Your task to perform on an android device: open app "AliExpress" (install if not already installed), go to login, and select forgot password Image 0: 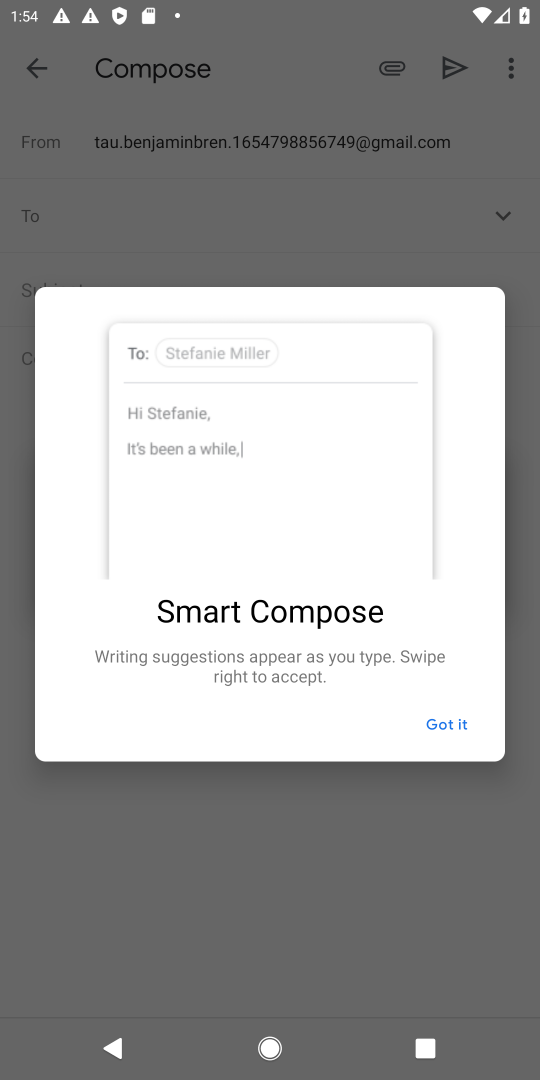
Step 0: press home button
Your task to perform on an android device: open app "AliExpress" (install if not already installed), go to login, and select forgot password Image 1: 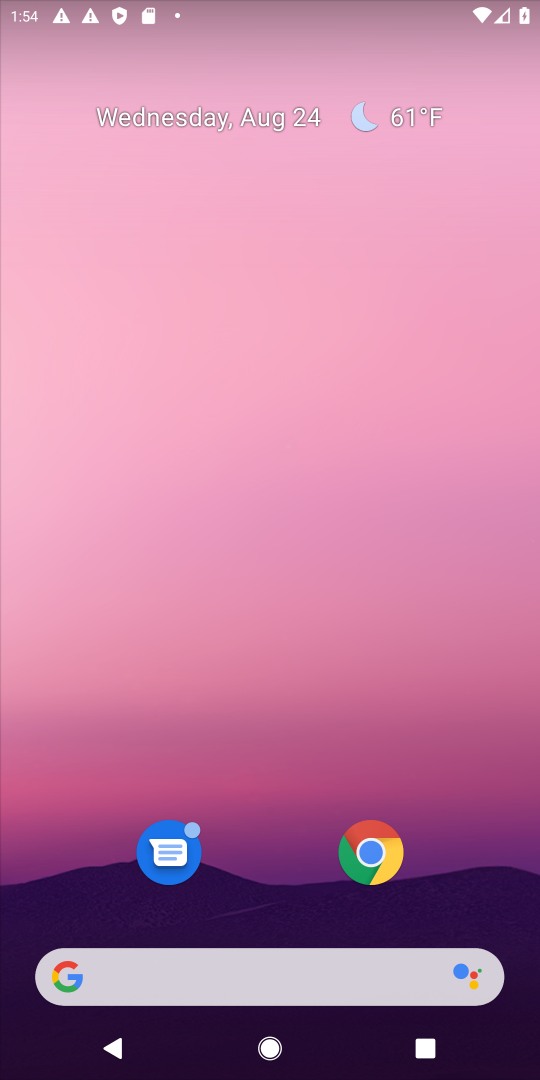
Step 1: drag from (275, 896) to (287, 53)
Your task to perform on an android device: open app "AliExpress" (install if not already installed), go to login, and select forgot password Image 2: 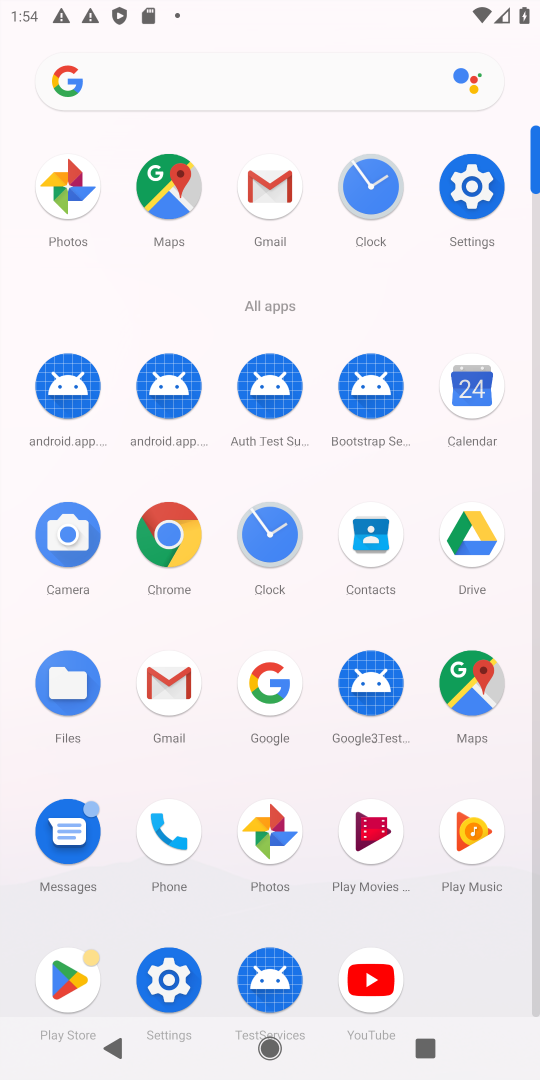
Step 2: click (59, 974)
Your task to perform on an android device: open app "AliExpress" (install if not already installed), go to login, and select forgot password Image 3: 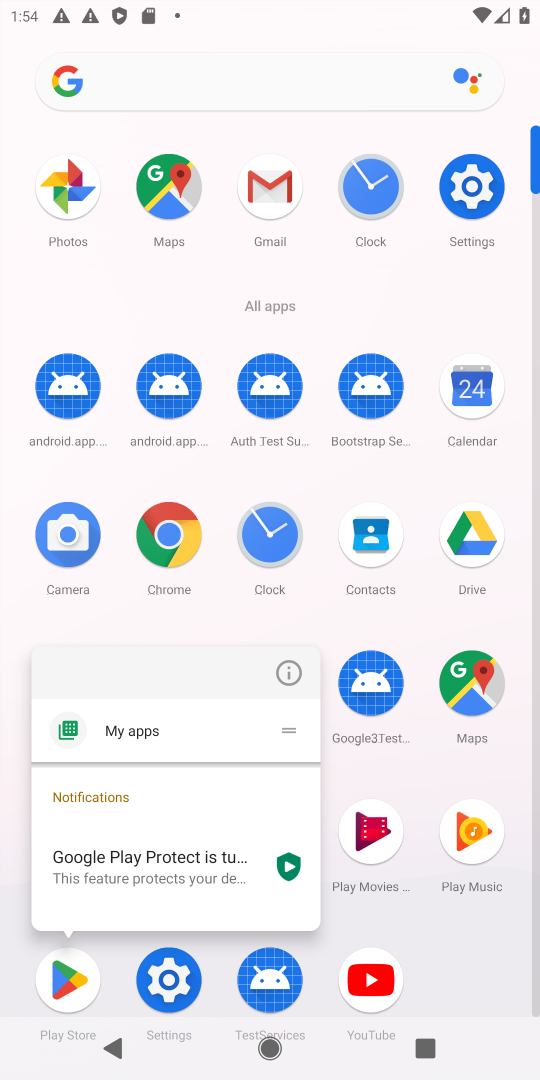
Step 3: click (66, 973)
Your task to perform on an android device: open app "AliExpress" (install if not already installed), go to login, and select forgot password Image 4: 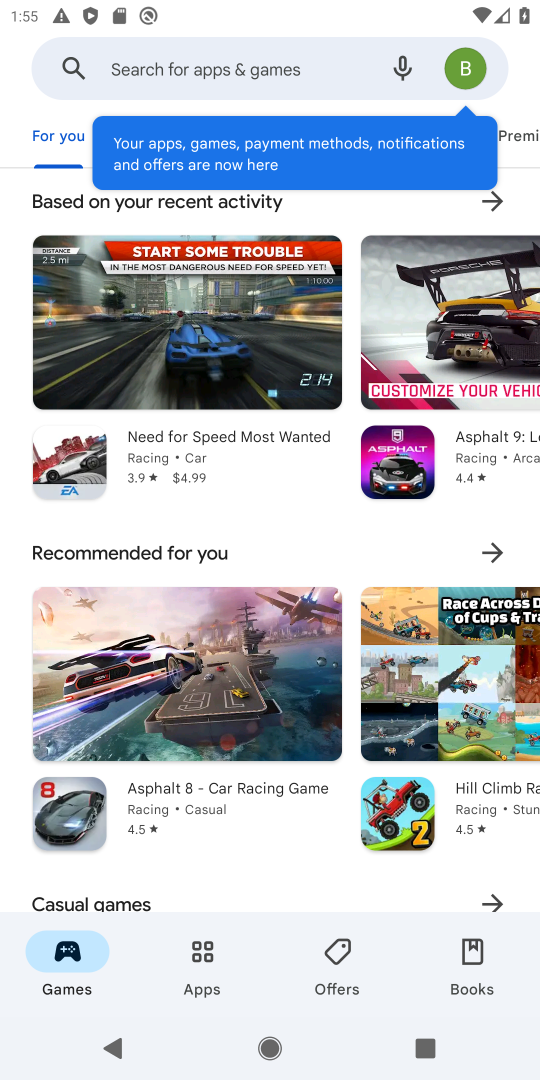
Step 4: click (172, 63)
Your task to perform on an android device: open app "AliExpress" (install if not already installed), go to login, and select forgot password Image 5: 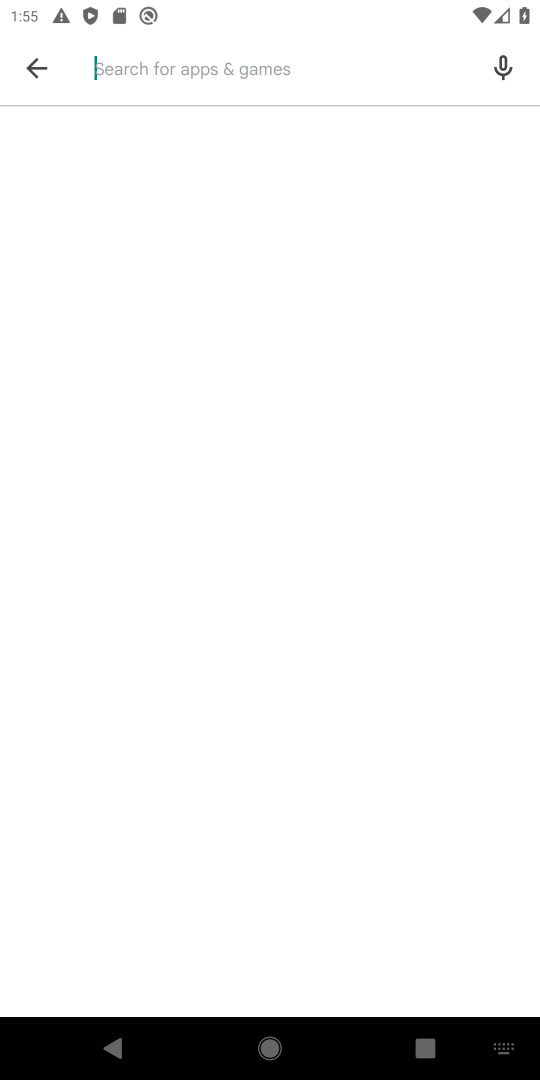
Step 5: type "AliExpress"
Your task to perform on an android device: open app "AliExpress" (install if not already installed), go to login, and select forgot password Image 6: 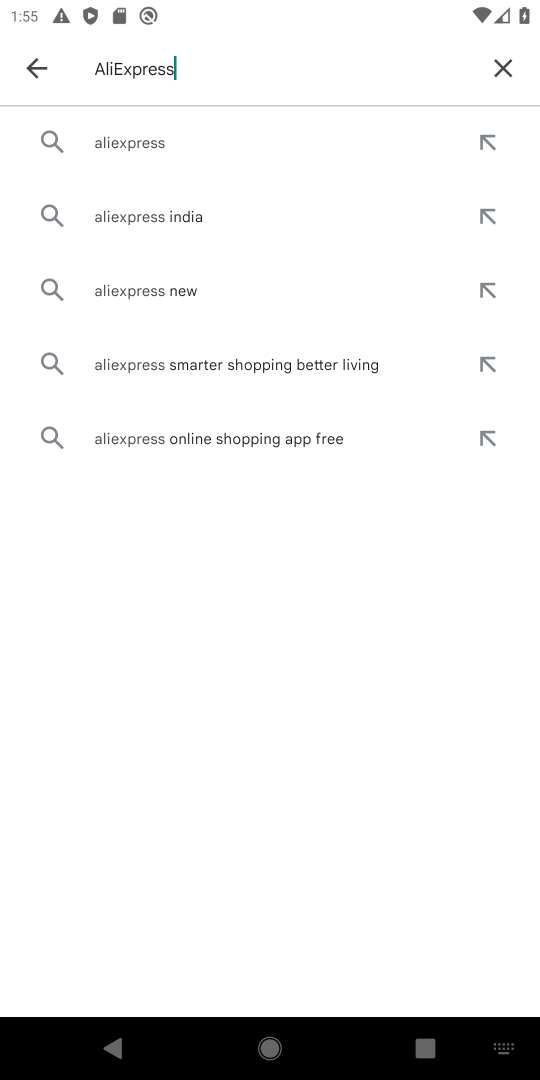
Step 6: click (171, 135)
Your task to perform on an android device: open app "AliExpress" (install if not already installed), go to login, and select forgot password Image 7: 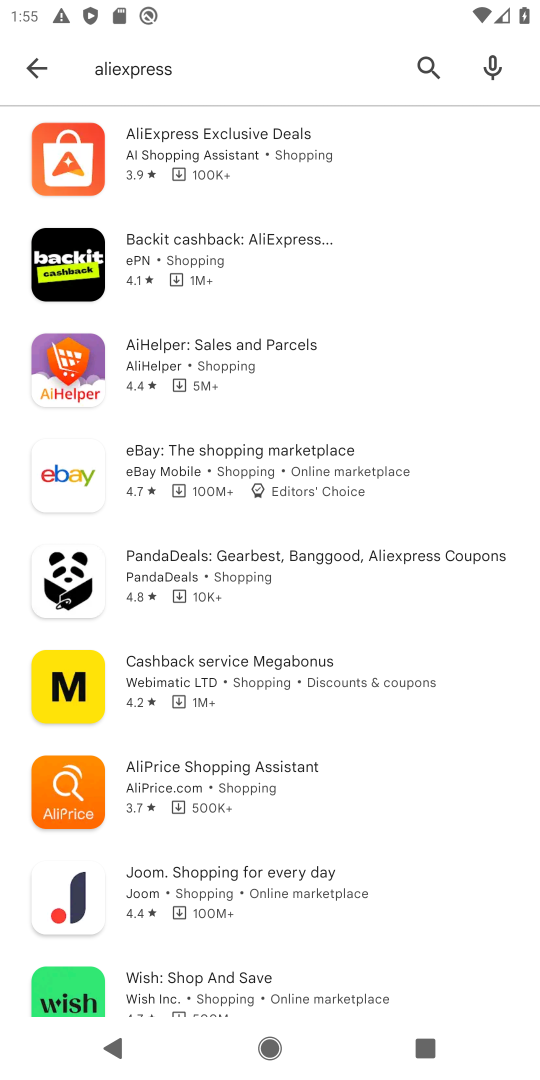
Step 7: click (227, 161)
Your task to perform on an android device: open app "AliExpress" (install if not already installed), go to login, and select forgot password Image 8: 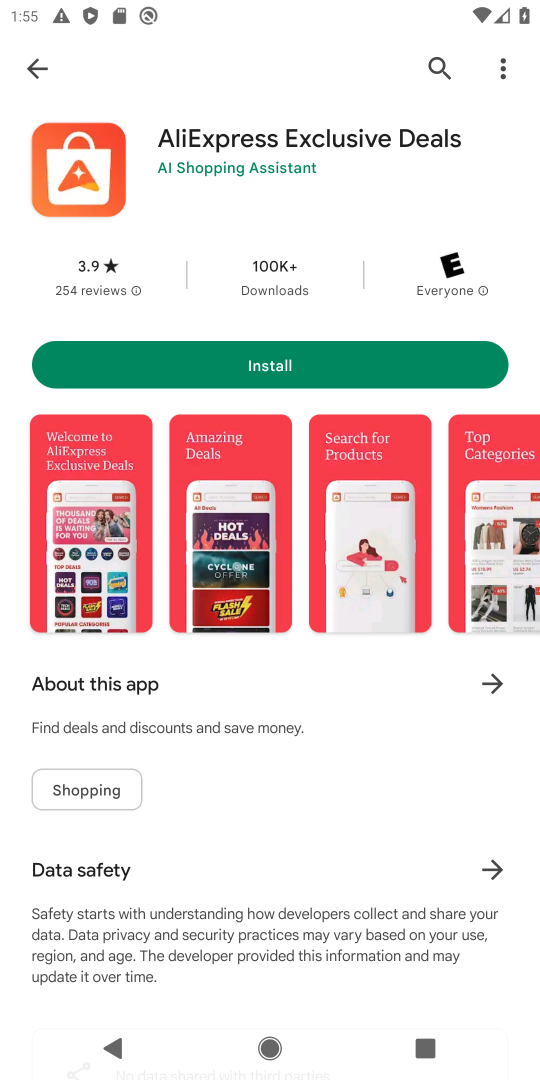
Step 8: click (273, 364)
Your task to perform on an android device: open app "AliExpress" (install if not already installed), go to login, and select forgot password Image 9: 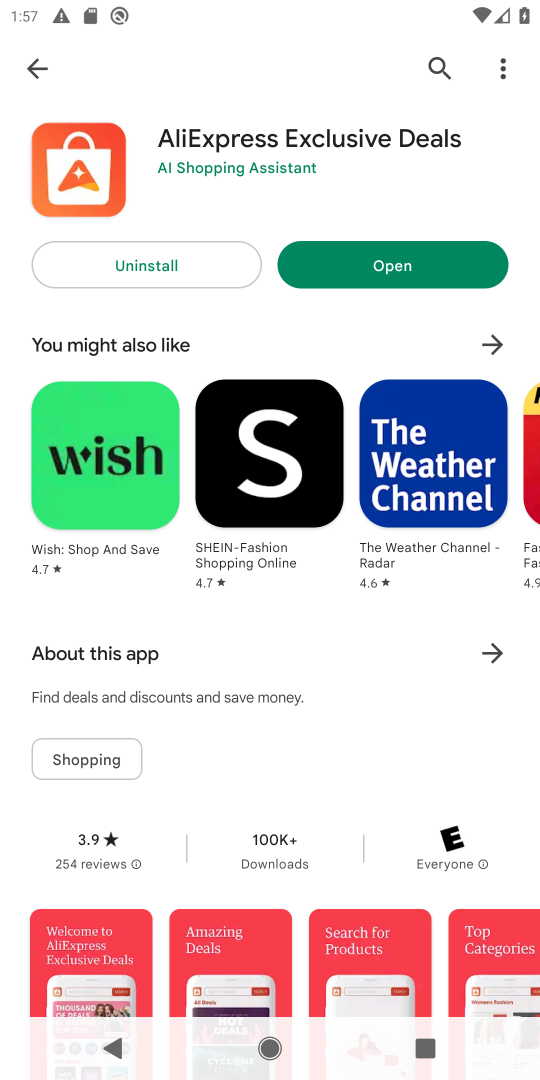
Step 9: click (398, 261)
Your task to perform on an android device: open app "AliExpress" (install if not already installed), go to login, and select forgot password Image 10: 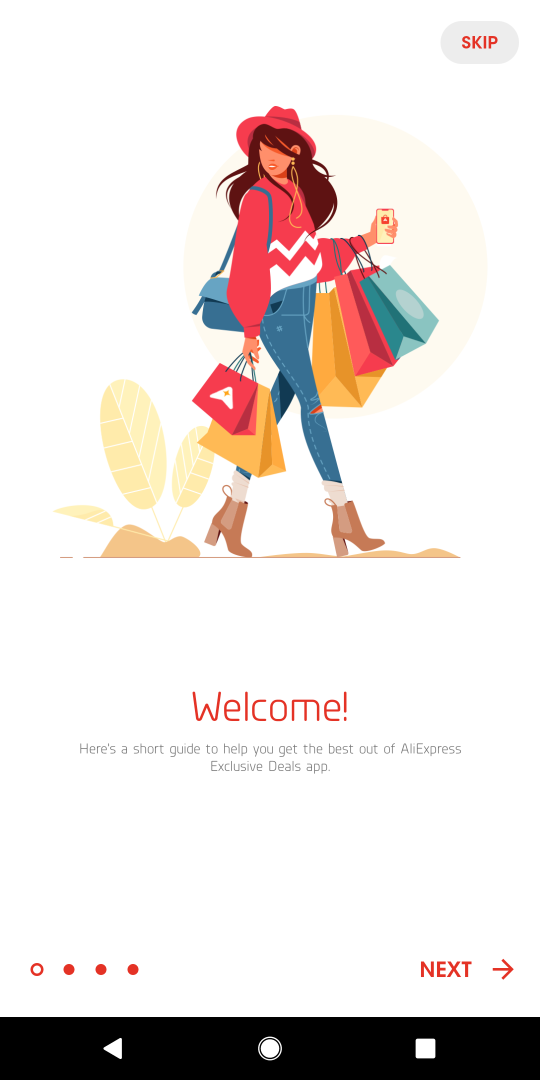
Step 10: click (471, 950)
Your task to perform on an android device: open app "AliExpress" (install if not already installed), go to login, and select forgot password Image 11: 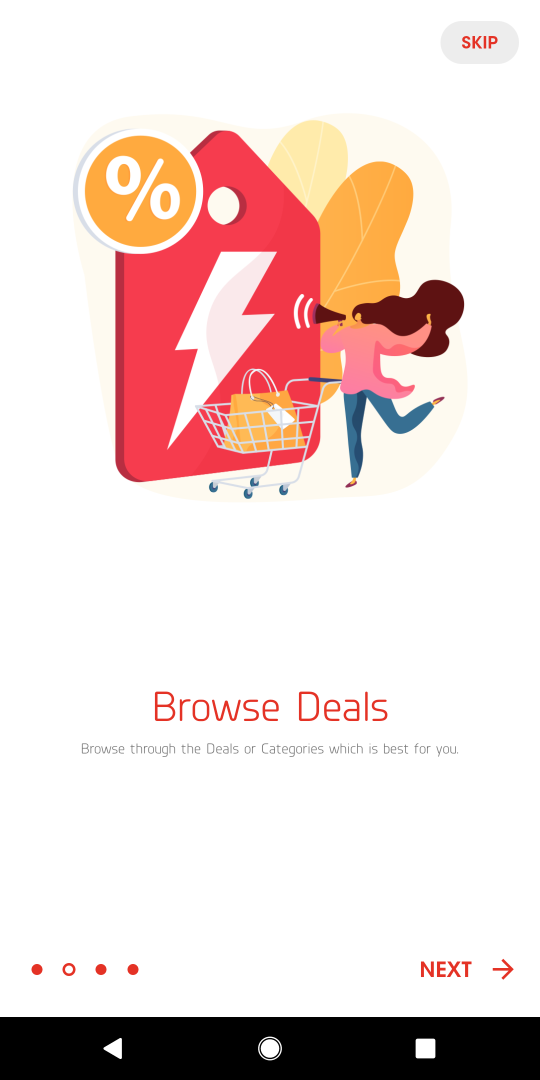
Step 11: click (471, 965)
Your task to perform on an android device: open app "AliExpress" (install if not already installed), go to login, and select forgot password Image 12: 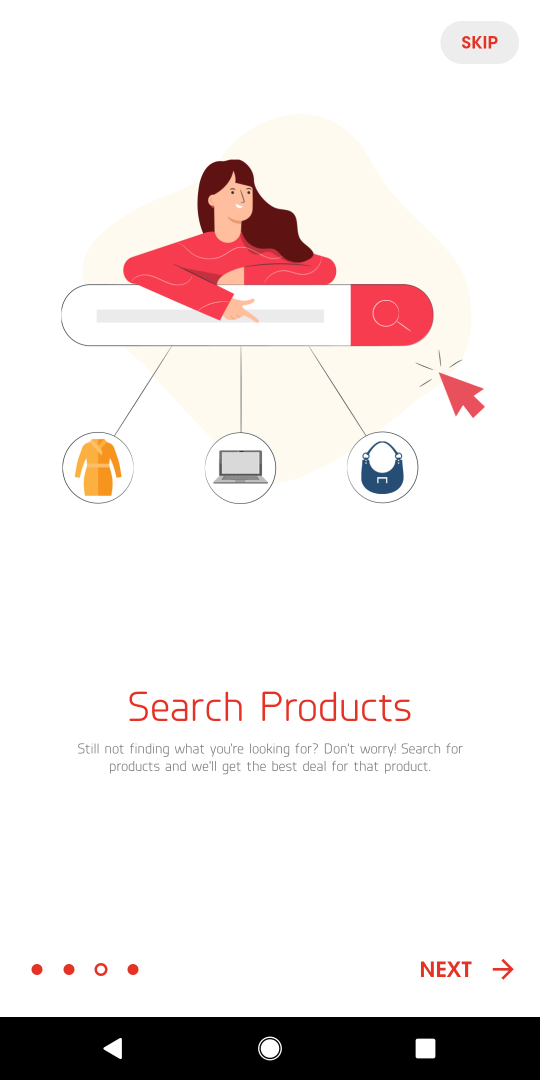
Step 12: click (471, 965)
Your task to perform on an android device: open app "AliExpress" (install if not already installed), go to login, and select forgot password Image 13: 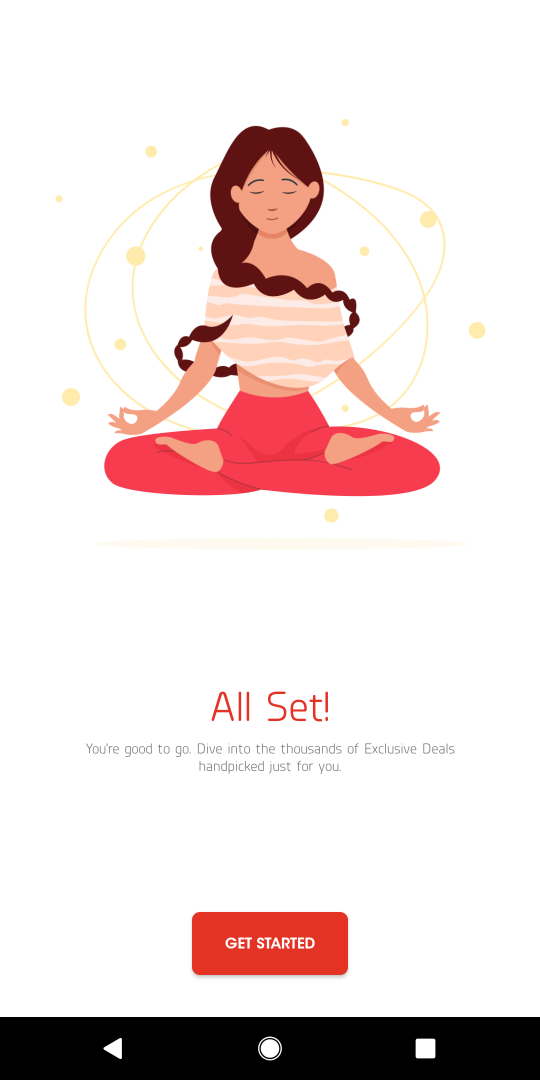
Step 13: click (259, 947)
Your task to perform on an android device: open app "AliExpress" (install if not already installed), go to login, and select forgot password Image 14: 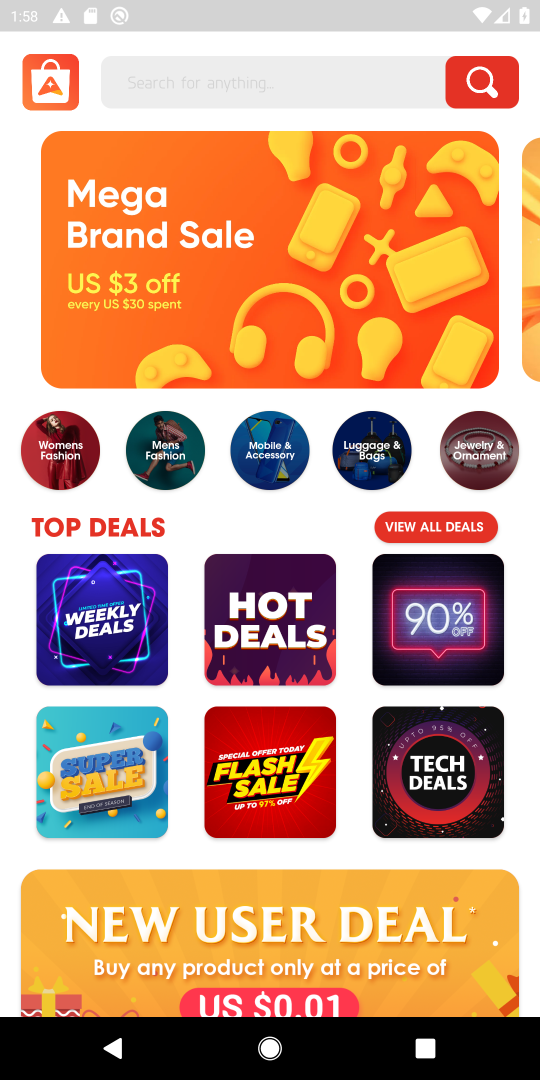
Step 14: task complete